Your task to perform on an android device: Search for seafood restaurants on Google Maps Image 0: 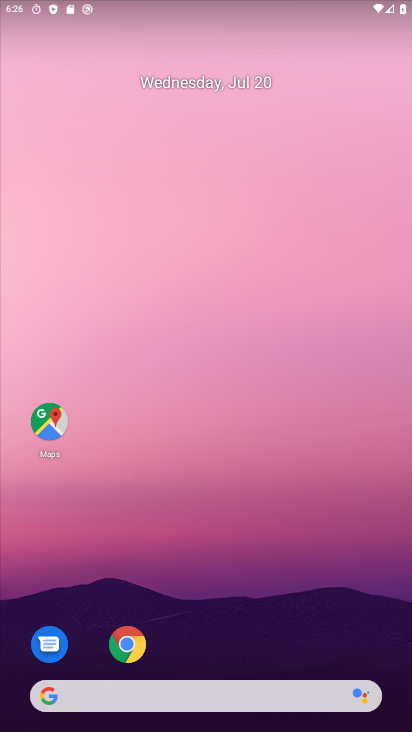
Step 0: press home button
Your task to perform on an android device: Search for seafood restaurants on Google Maps Image 1: 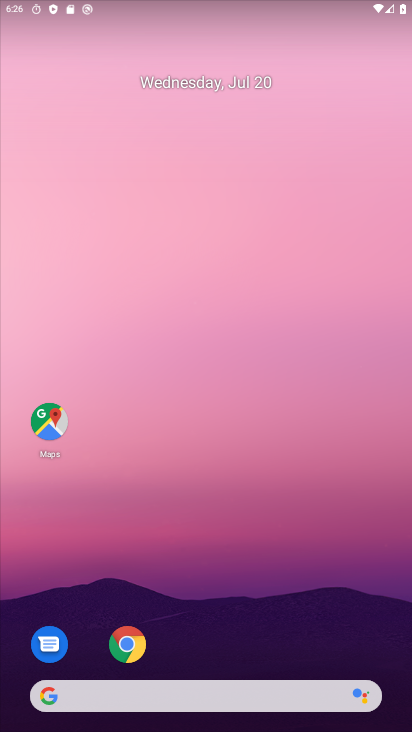
Step 1: drag from (248, 656) to (243, 30)
Your task to perform on an android device: Search for seafood restaurants on Google Maps Image 2: 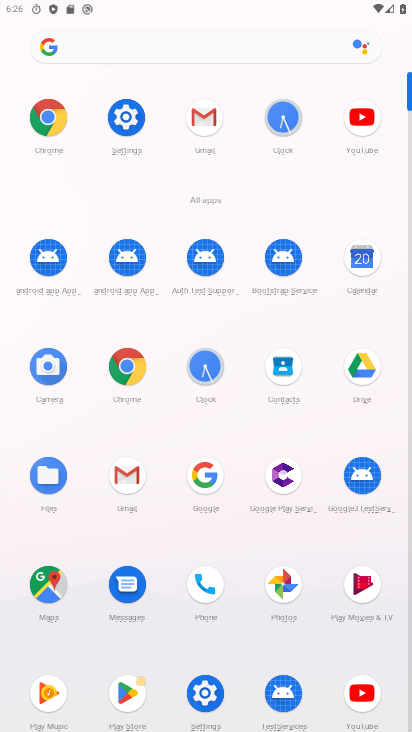
Step 2: click (49, 591)
Your task to perform on an android device: Search for seafood restaurants on Google Maps Image 3: 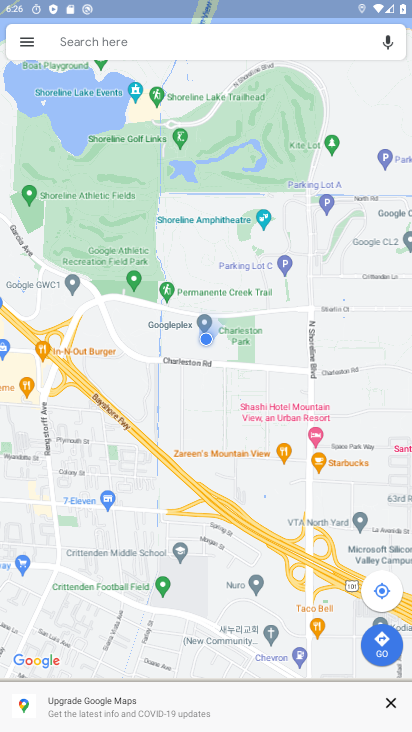
Step 3: click (124, 40)
Your task to perform on an android device: Search for seafood restaurants on Google Maps Image 4: 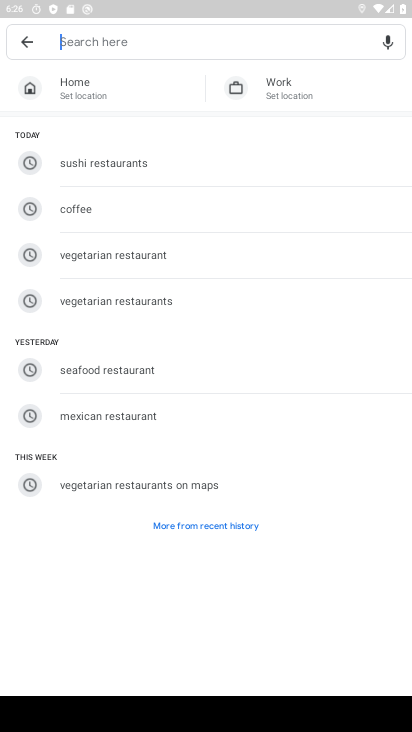
Step 4: click (94, 375)
Your task to perform on an android device: Search for seafood restaurants on Google Maps Image 5: 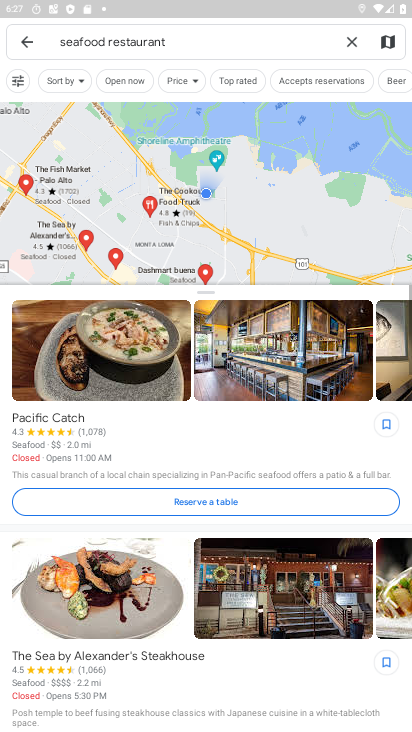
Step 5: task complete